Your task to perform on an android device: check out phone information Image 0: 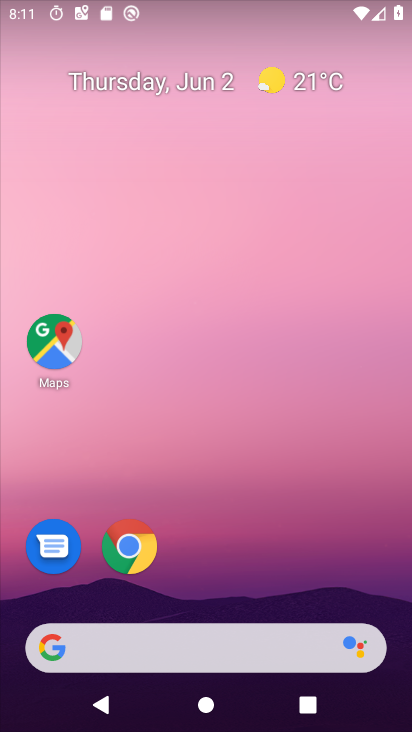
Step 0: drag from (297, 576) to (329, 248)
Your task to perform on an android device: check out phone information Image 1: 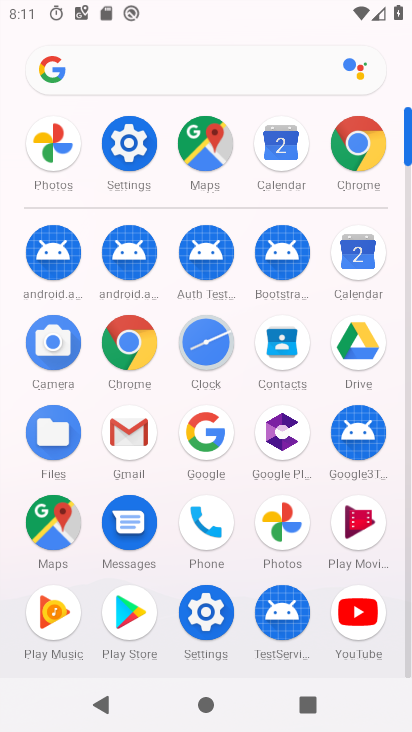
Step 1: click (197, 625)
Your task to perform on an android device: check out phone information Image 2: 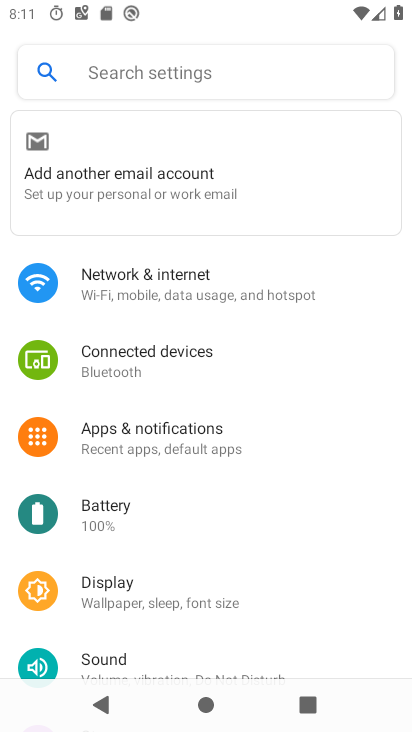
Step 2: task complete